Your task to perform on an android device: Search for Italian restaurants on Maps Image 0: 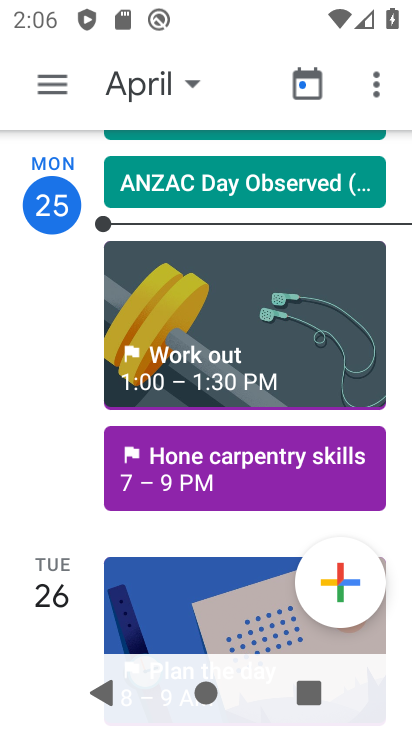
Step 0: press home button
Your task to perform on an android device: Search for Italian restaurants on Maps Image 1: 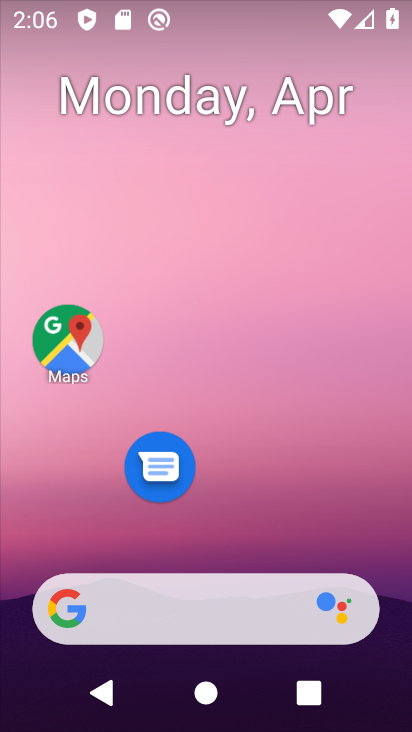
Step 1: drag from (270, 547) to (234, 122)
Your task to perform on an android device: Search for Italian restaurants on Maps Image 2: 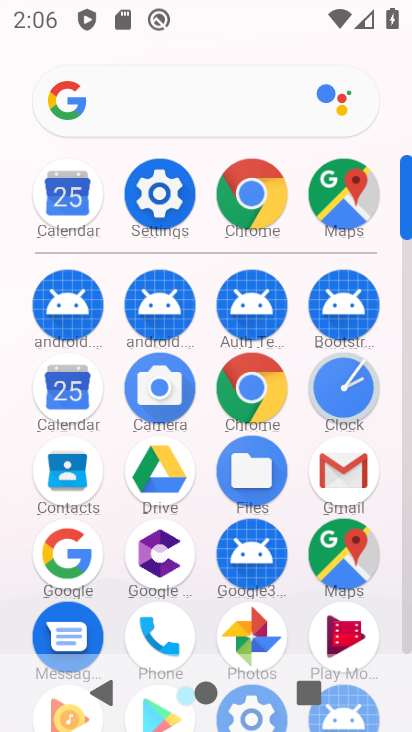
Step 2: click (331, 571)
Your task to perform on an android device: Search for Italian restaurants on Maps Image 3: 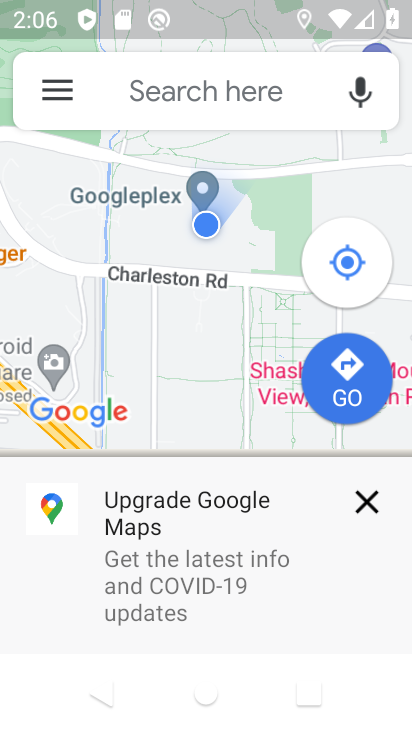
Step 3: click (155, 93)
Your task to perform on an android device: Search for Italian restaurants on Maps Image 4: 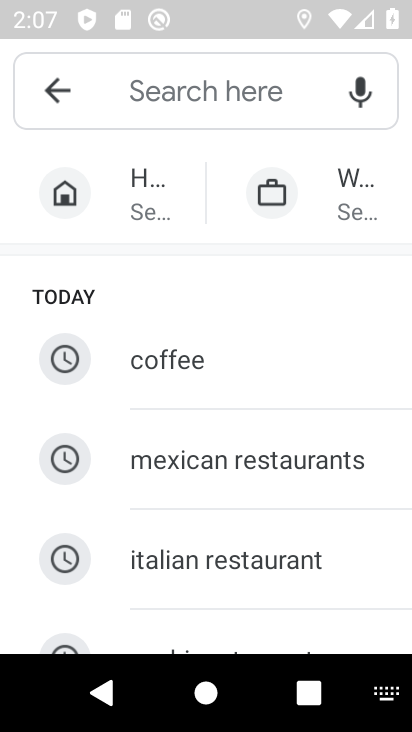
Step 4: type "italian restaurants"
Your task to perform on an android device: Search for Italian restaurants on Maps Image 5: 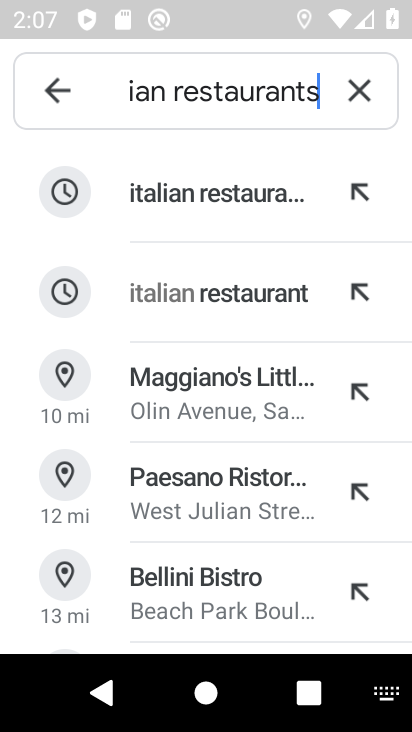
Step 5: click (261, 203)
Your task to perform on an android device: Search for Italian restaurants on Maps Image 6: 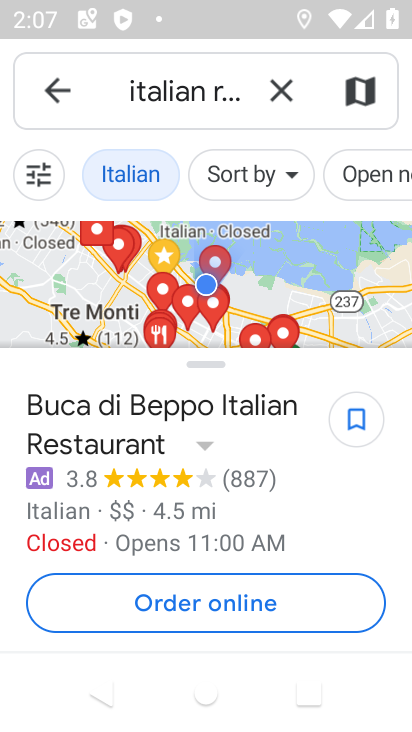
Step 6: task complete